Your task to perform on an android device: Open Android settings Image 0: 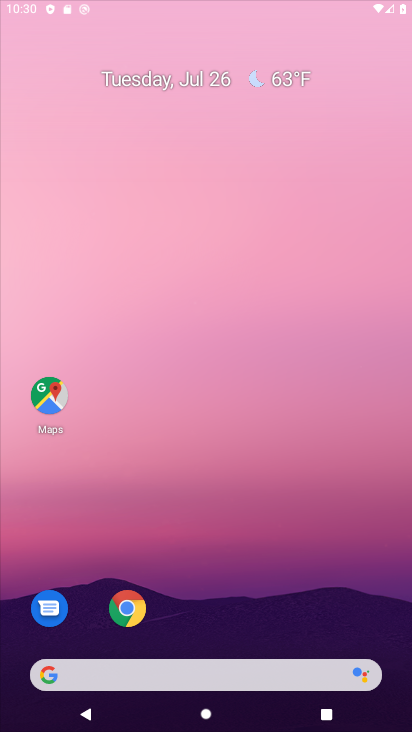
Step 0: press home button
Your task to perform on an android device: Open Android settings Image 1: 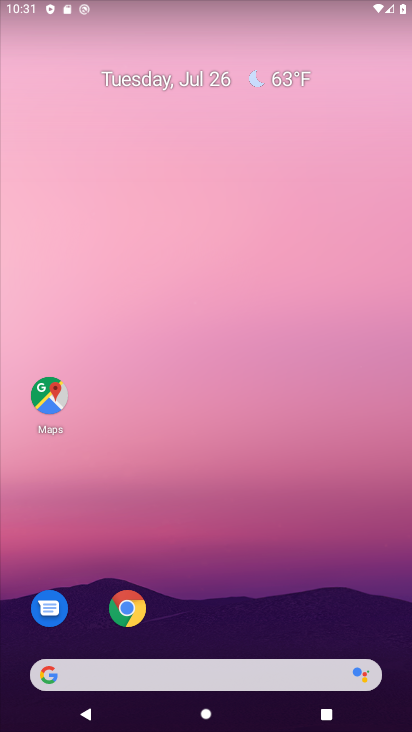
Step 1: drag from (279, 629) to (319, 128)
Your task to perform on an android device: Open Android settings Image 2: 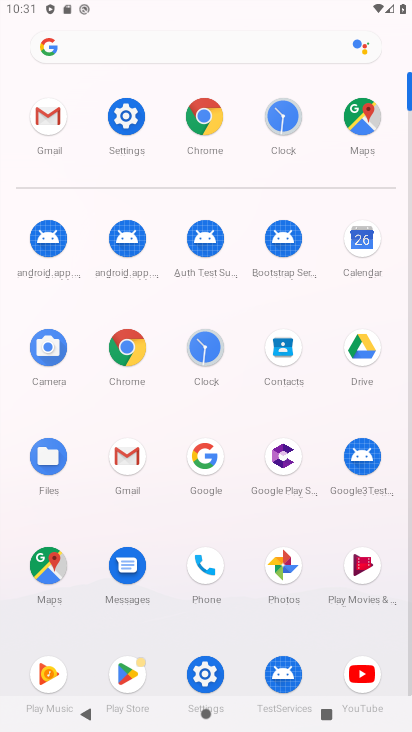
Step 2: click (124, 114)
Your task to perform on an android device: Open Android settings Image 3: 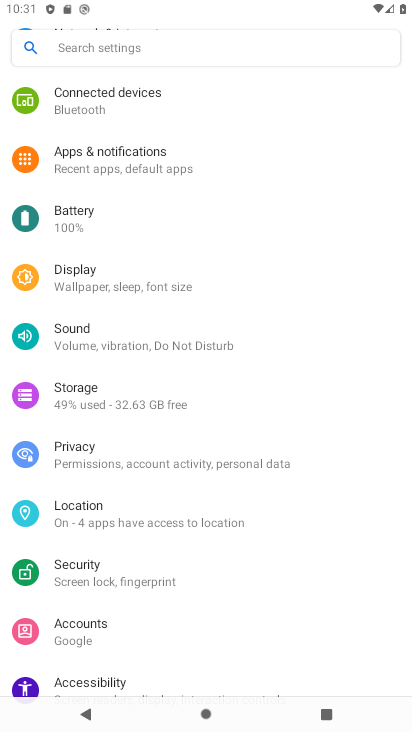
Step 3: task complete